Your task to perform on an android device: find photos in the google photos app Image 0: 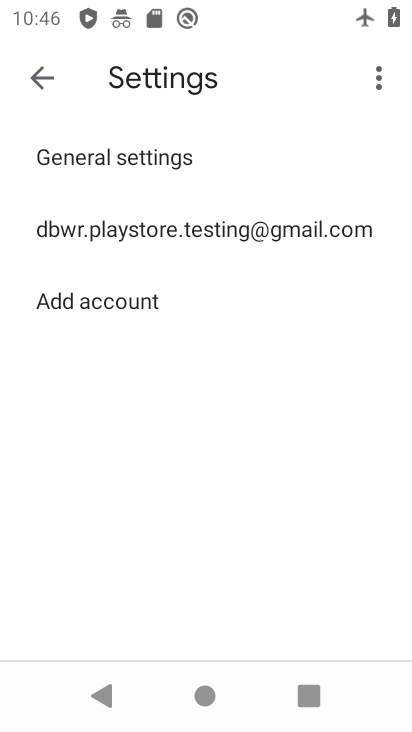
Step 0: press home button
Your task to perform on an android device: find photos in the google photos app Image 1: 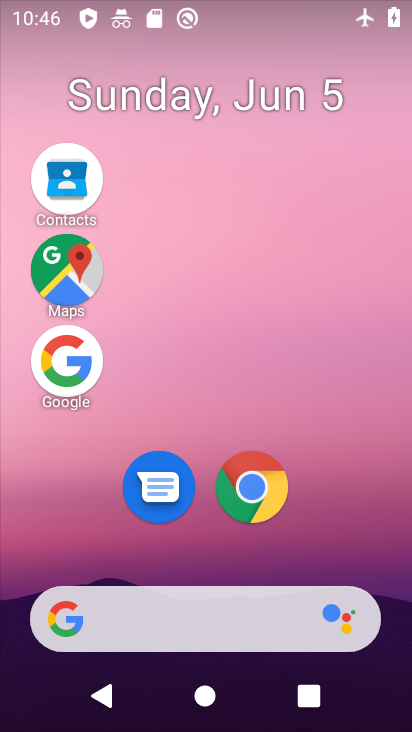
Step 1: drag from (232, 619) to (262, 185)
Your task to perform on an android device: find photos in the google photos app Image 2: 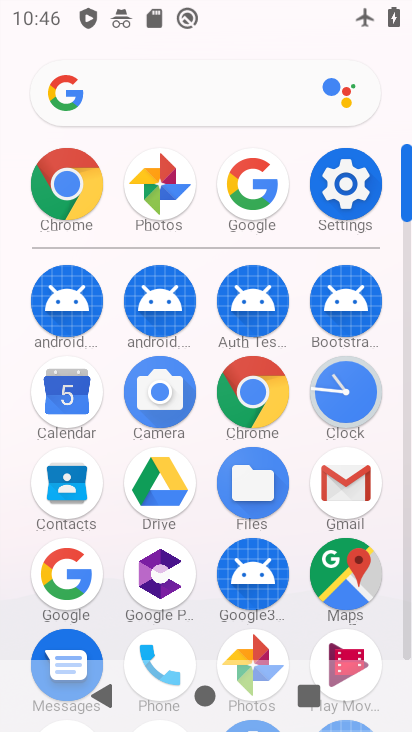
Step 2: drag from (208, 514) to (205, 161)
Your task to perform on an android device: find photos in the google photos app Image 3: 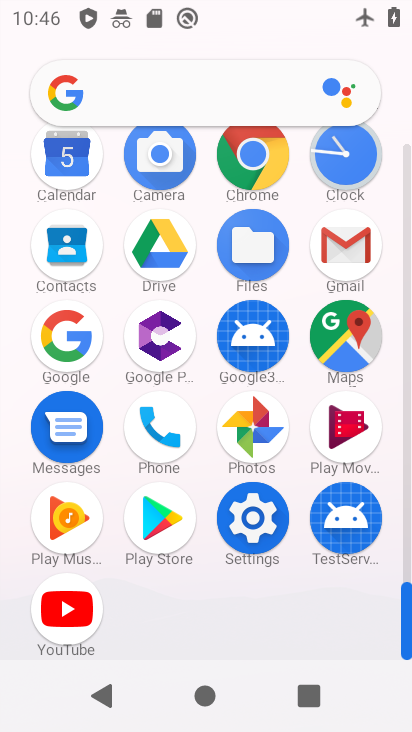
Step 3: click (265, 438)
Your task to perform on an android device: find photos in the google photos app Image 4: 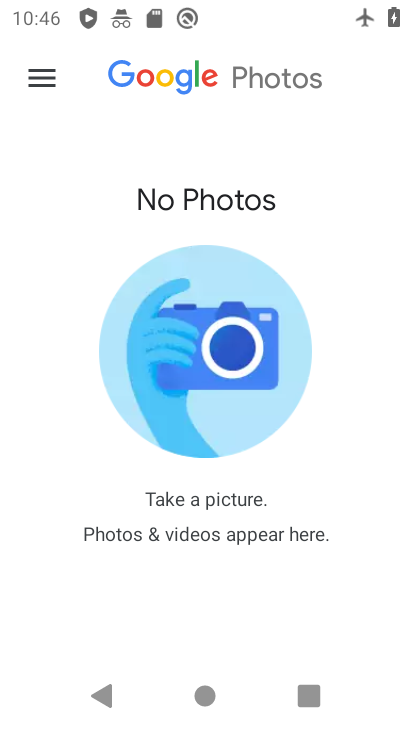
Step 4: click (46, 93)
Your task to perform on an android device: find photos in the google photos app Image 5: 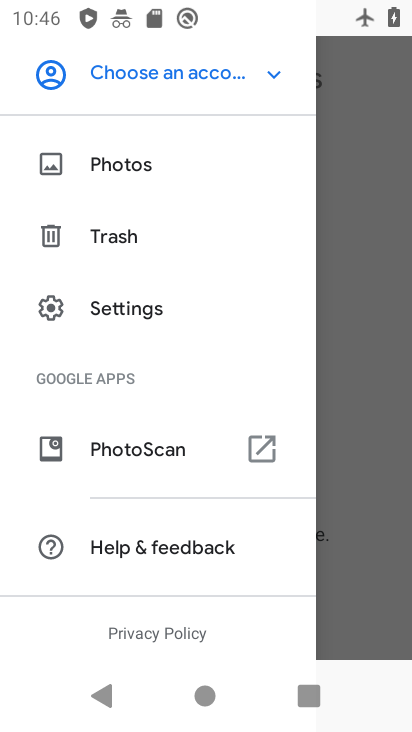
Step 5: click (135, 161)
Your task to perform on an android device: find photos in the google photos app Image 6: 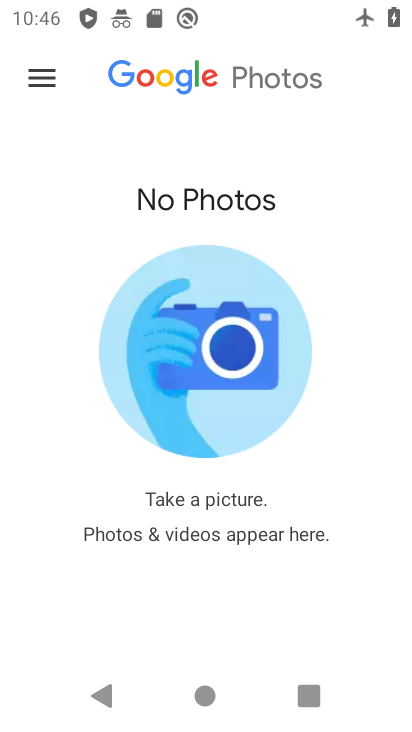
Step 6: task complete